Your task to perform on an android device: What's the weather going to be tomorrow? Image 0: 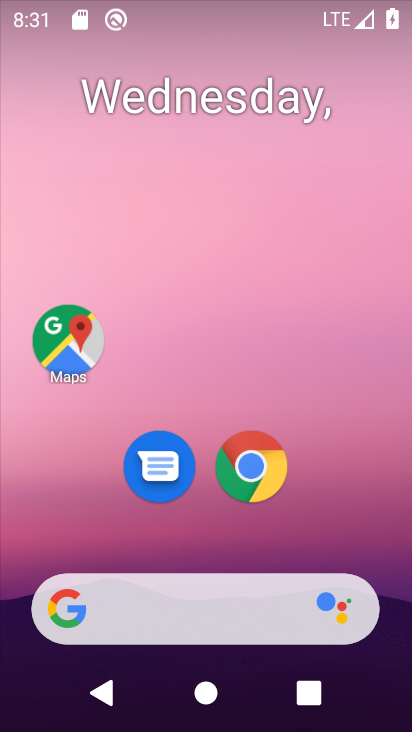
Step 0: drag from (240, 721) to (247, 35)
Your task to perform on an android device: What's the weather going to be tomorrow? Image 1: 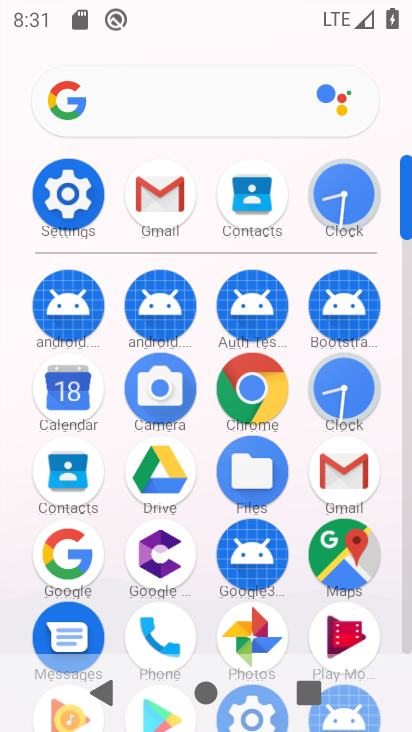
Step 1: click (67, 554)
Your task to perform on an android device: What's the weather going to be tomorrow? Image 2: 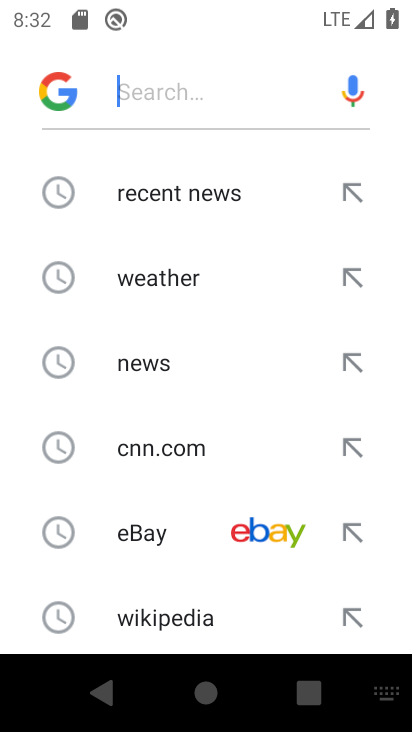
Step 2: click (175, 279)
Your task to perform on an android device: What's the weather going to be tomorrow? Image 3: 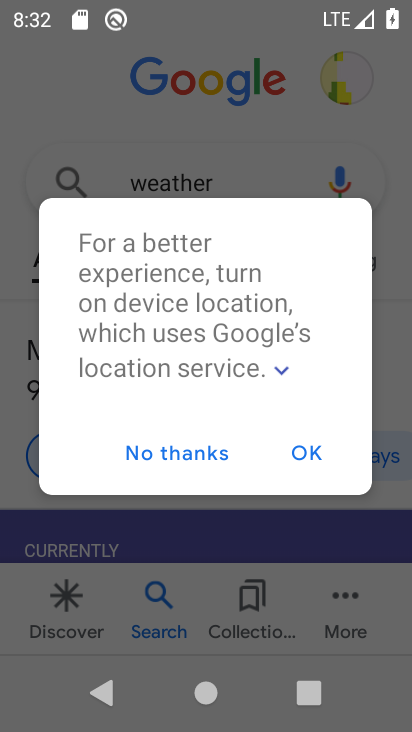
Step 3: click (177, 457)
Your task to perform on an android device: What's the weather going to be tomorrow? Image 4: 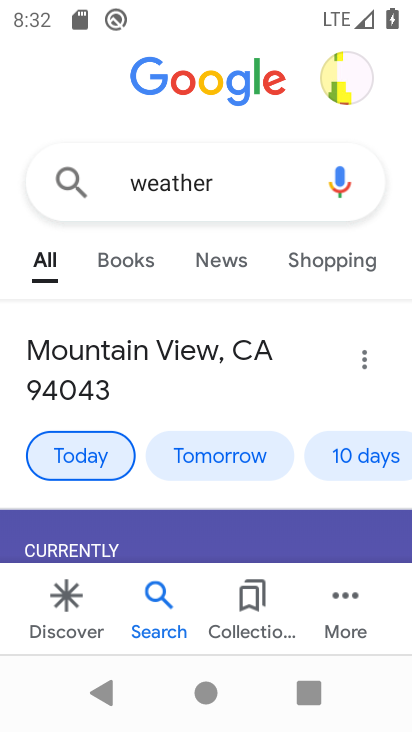
Step 4: drag from (262, 545) to (274, 180)
Your task to perform on an android device: What's the weather going to be tomorrow? Image 5: 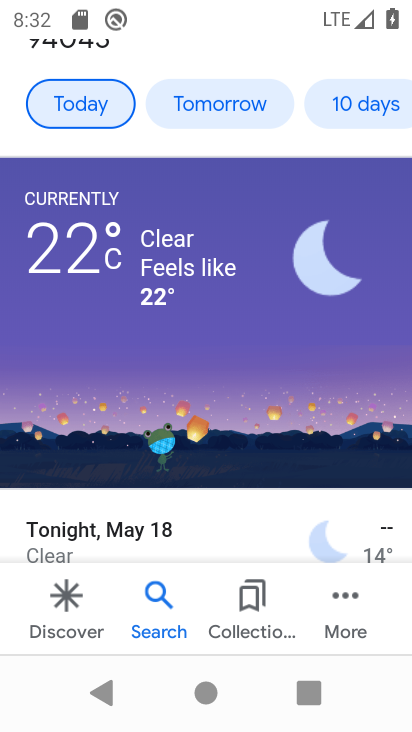
Step 5: click (220, 108)
Your task to perform on an android device: What's the weather going to be tomorrow? Image 6: 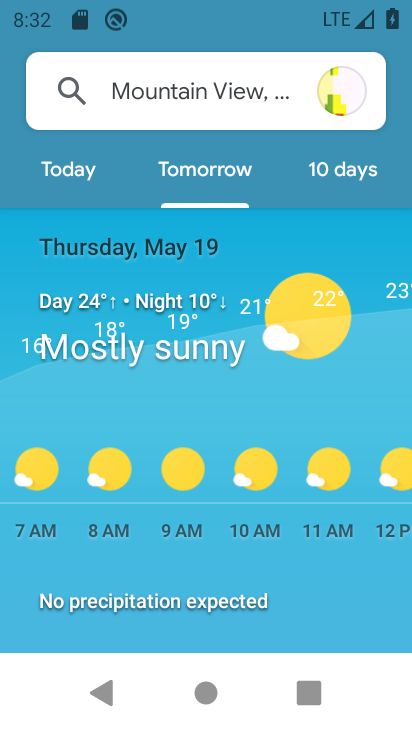
Step 6: task complete